Your task to perform on an android device: Open Chrome and go to settings Image 0: 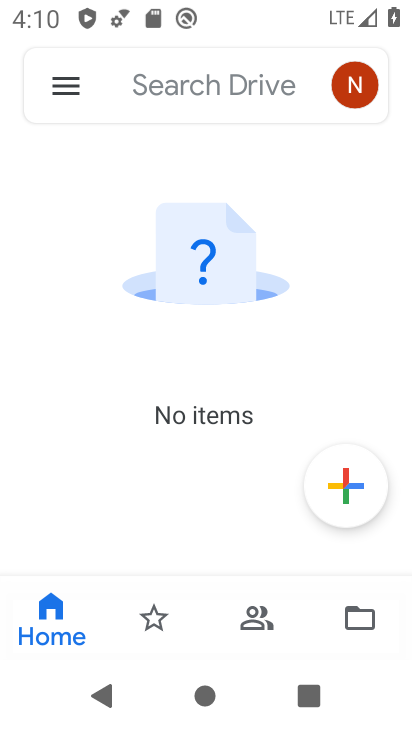
Step 0: press back button
Your task to perform on an android device: Open Chrome and go to settings Image 1: 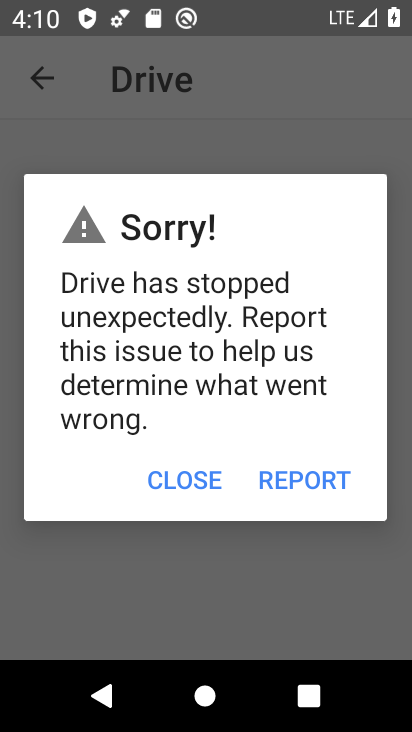
Step 1: click (177, 477)
Your task to perform on an android device: Open Chrome and go to settings Image 2: 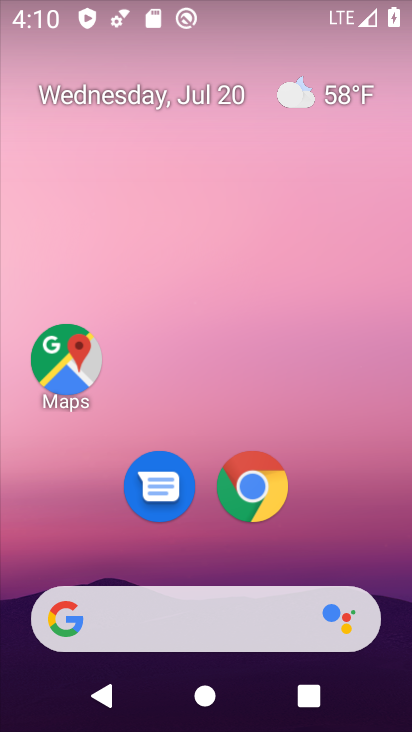
Step 2: click (273, 494)
Your task to perform on an android device: Open Chrome and go to settings Image 3: 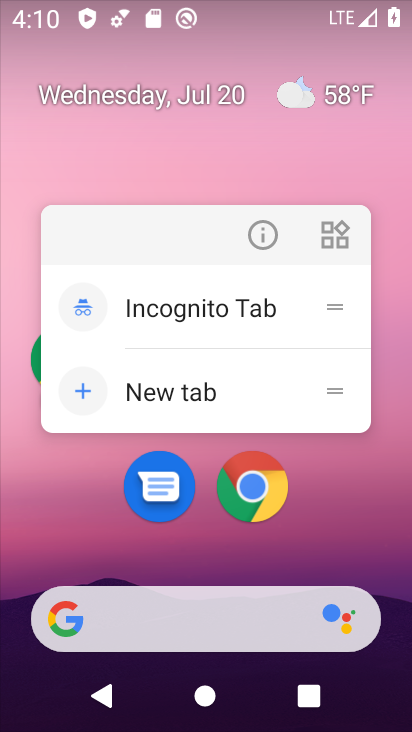
Step 3: click (259, 509)
Your task to perform on an android device: Open Chrome and go to settings Image 4: 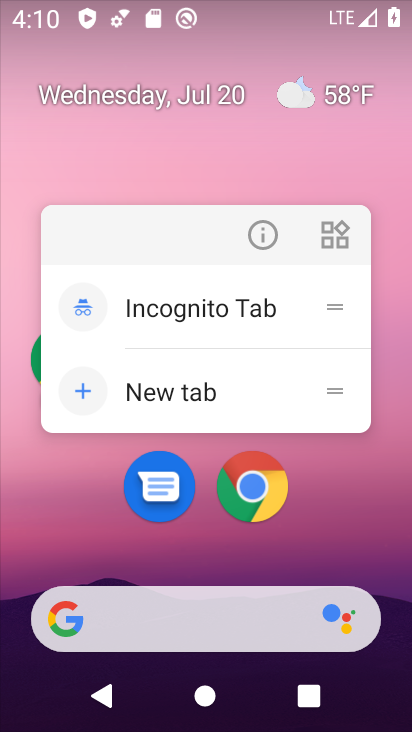
Step 4: click (249, 467)
Your task to perform on an android device: Open Chrome and go to settings Image 5: 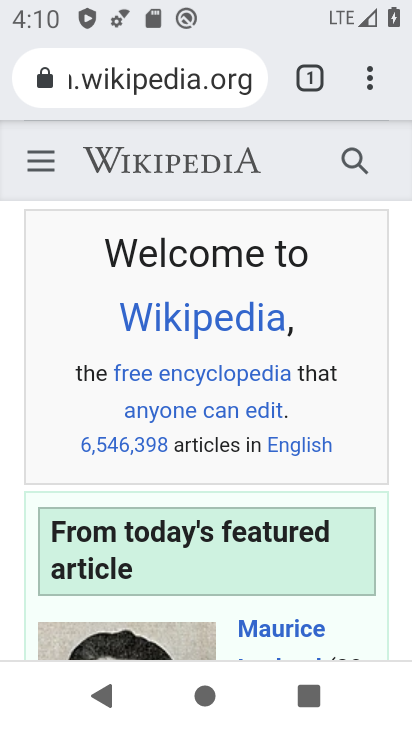
Step 5: task complete